Your task to perform on an android device: open app "DoorDash - Food Delivery" (install if not already installed), go to login, and select forgot password Image 0: 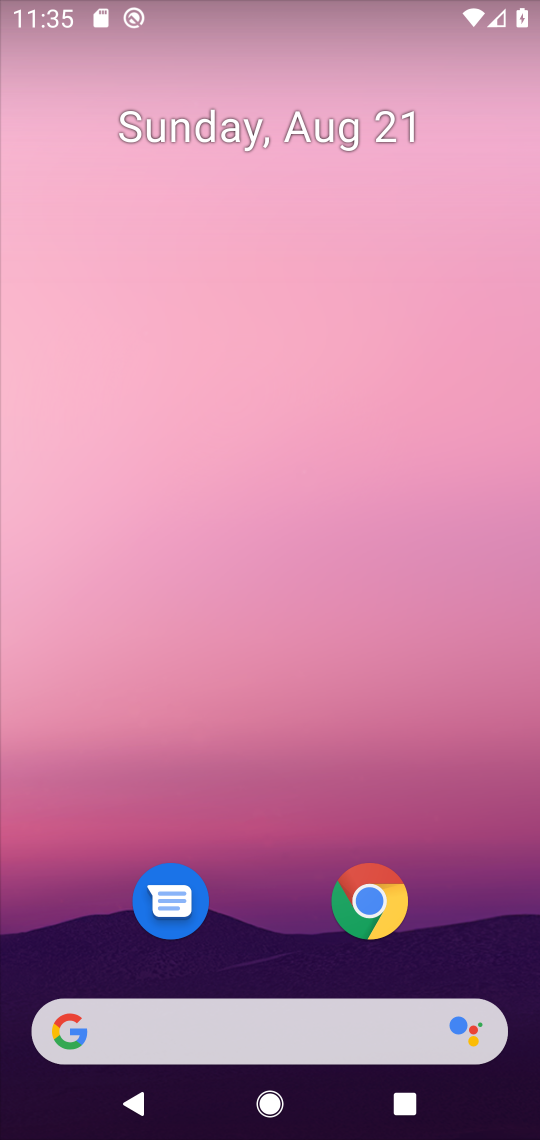
Step 0: drag from (294, 660) to (344, 434)
Your task to perform on an android device: open app "DoorDash - Food Delivery" (install if not already installed), go to login, and select forgot password Image 1: 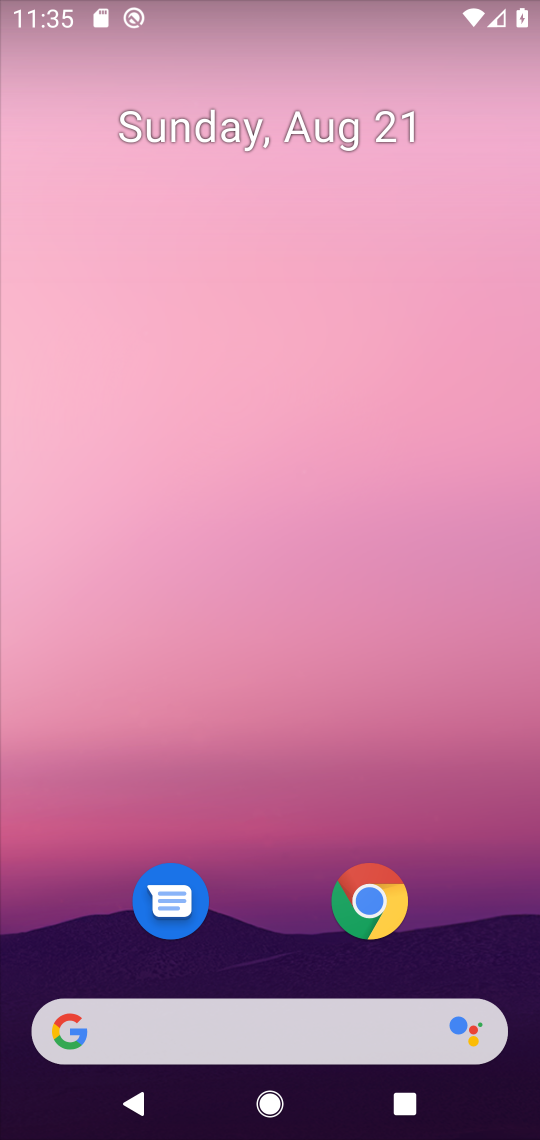
Step 1: drag from (245, 969) to (295, 248)
Your task to perform on an android device: open app "DoorDash - Food Delivery" (install if not already installed), go to login, and select forgot password Image 2: 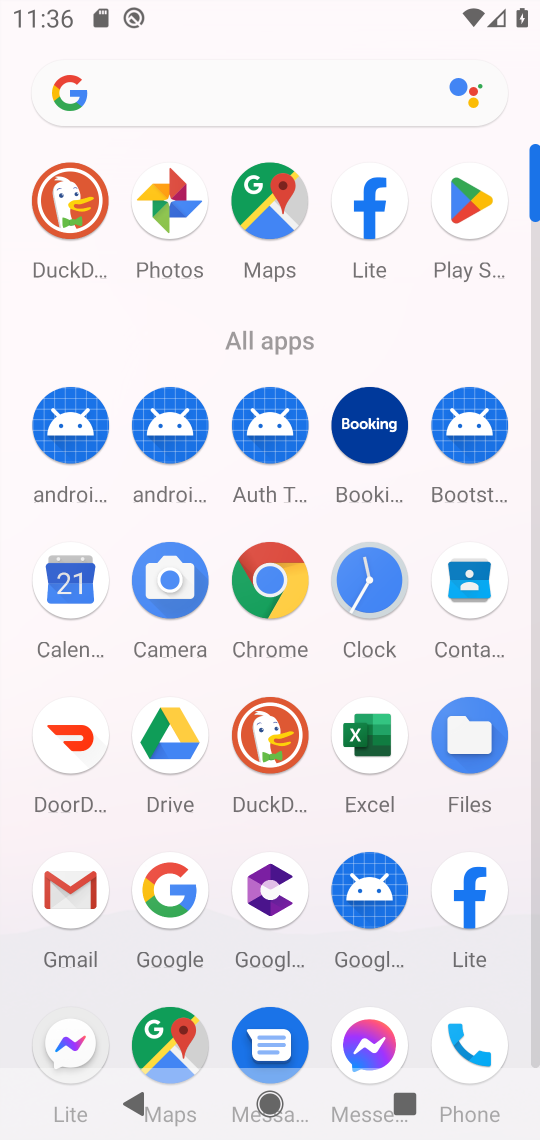
Step 2: click (79, 766)
Your task to perform on an android device: open app "DoorDash - Food Delivery" (install if not already installed), go to login, and select forgot password Image 3: 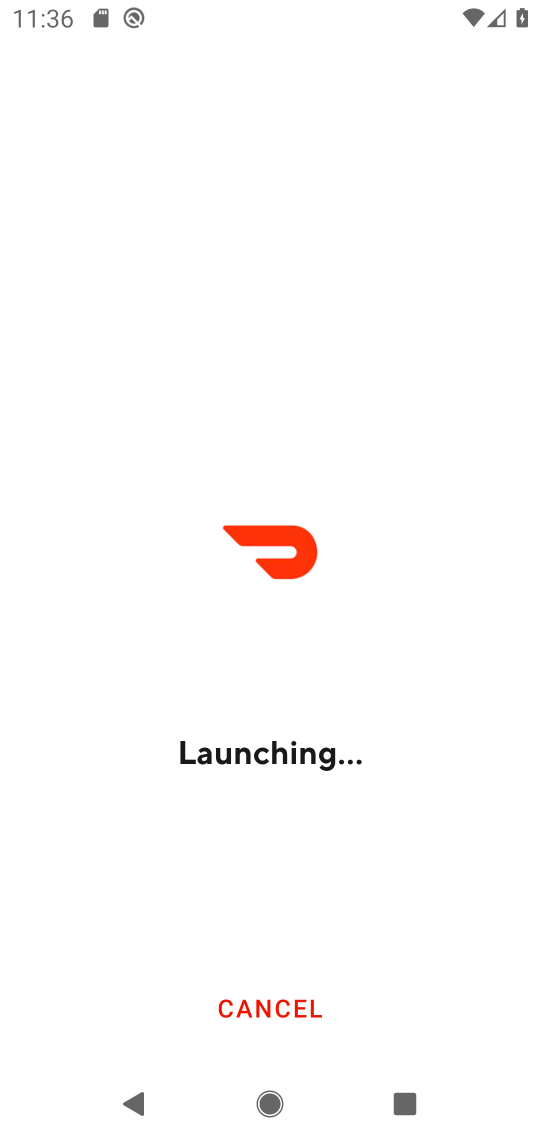
Step 3: task complete